Your task to perform on an android device: Open Youtube and go to "Your channel" Image 0: 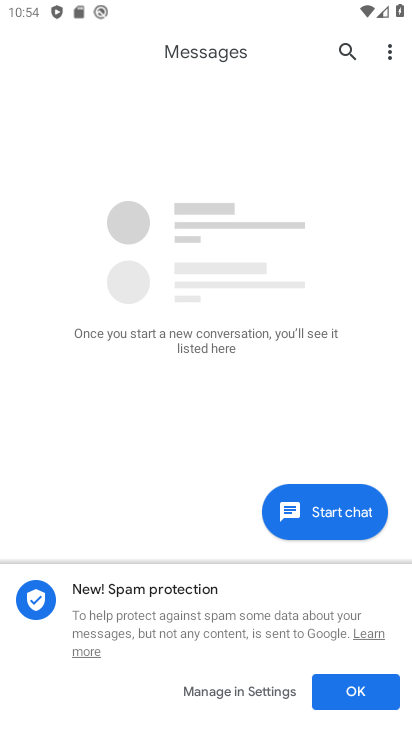
Step 0: press home button
Your task to perform on an android device: Open Youtube and go to "Your channel" Image 1: 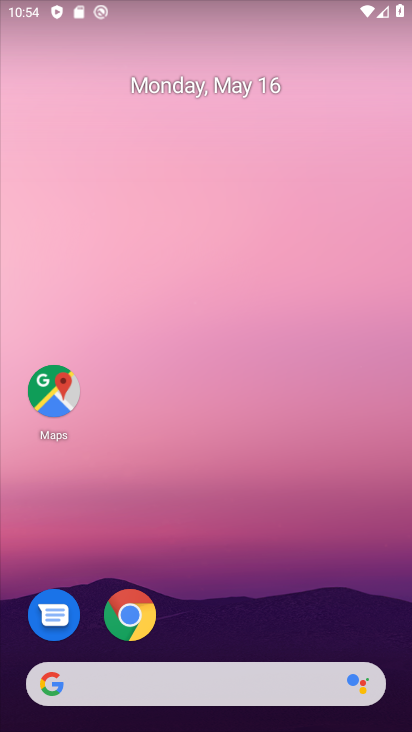
Step 1: drag from (297, 636) to (322, 49)
Your task to perform on an android device: Open Youtube and go to "Your channel" Image 2: 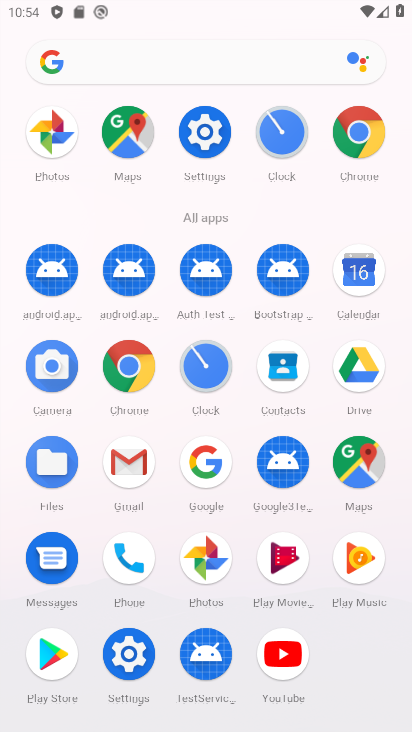
Step 2: click (283, 662)
Your task to perform on an android device: Open Youtube and go to "Your channel" Image 3: 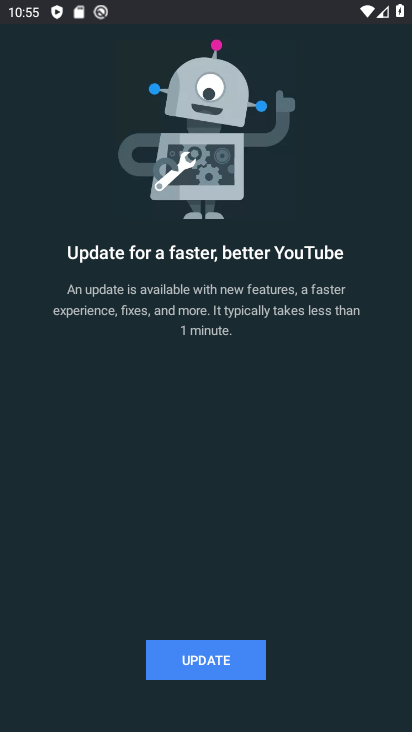
Step 3: click (203, 656)
Your task to perform on an android device: Open Youtube and go to "Your channel" Image 4: 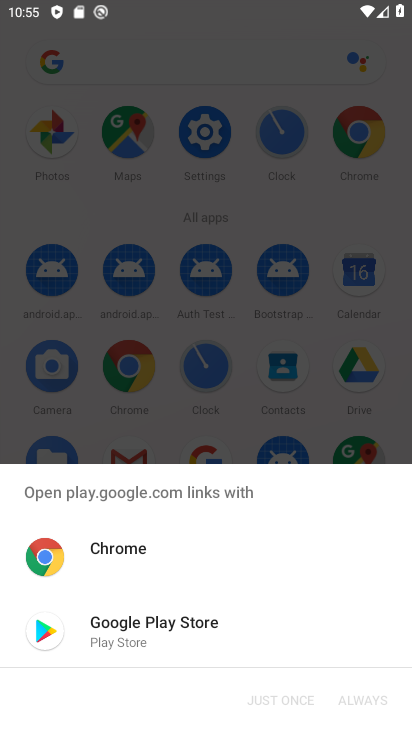
Step 4: click (137, 636)
Your task to perform on an android device: Open Youtube and go to "Your channel" Image 5: 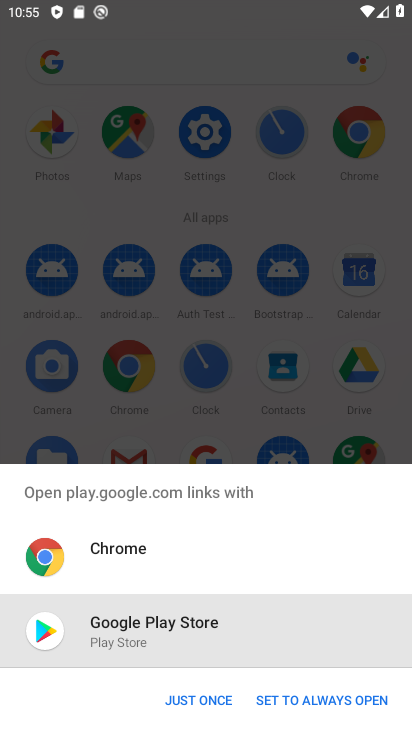
Step 5: click (213, 703)
Your task to perform on an android device: Open Youtube and go to "Your channel" Image 6: 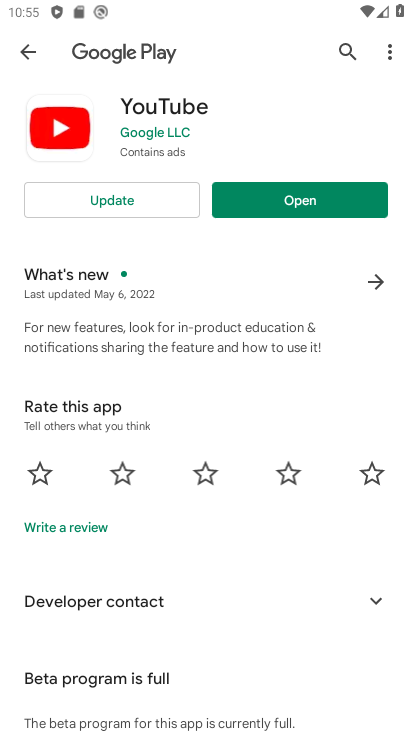
Step 6: click (143, 196)
Your task to perform on an android device: Open Youtube and go to "Your channel" Image 7: 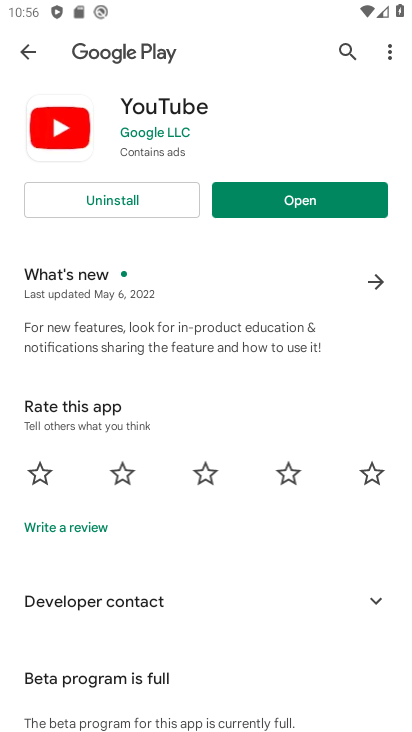
Step 7: click (282, 197)
Your task to perform on an android device: Open Youtube and go to "Your channel" Image 8: 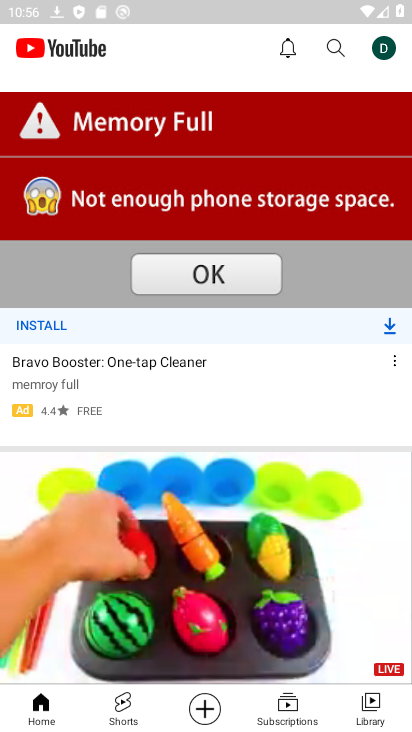
Step 8: task complete